Your task to perform on an android device: Open the map Image 0: 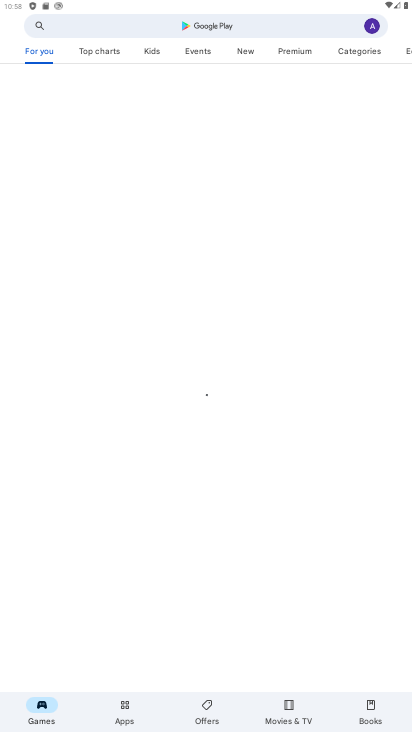
Step 0: press home button
Your task to perform on an android device: Open the map Image 1: 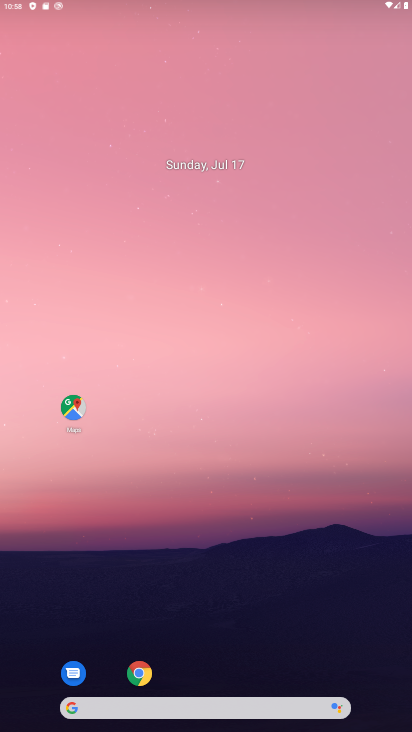
Step 1: click (74, 412)
Your task to perform on an android device: Open the map Image 2: 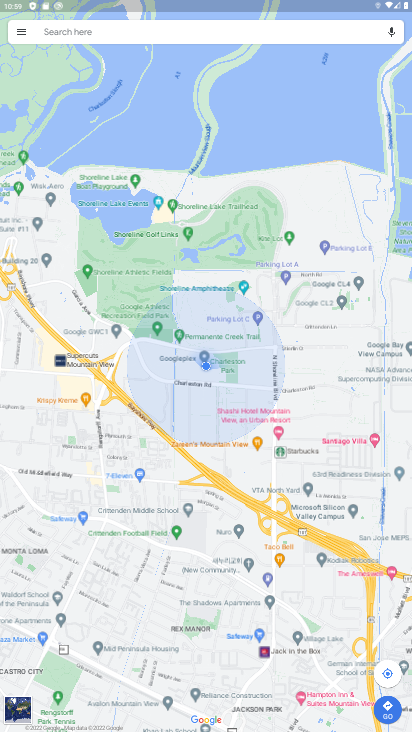
Step 2: task complete